Your task to perform on an android device: turn on priority inbox in the gmail app Image 0: 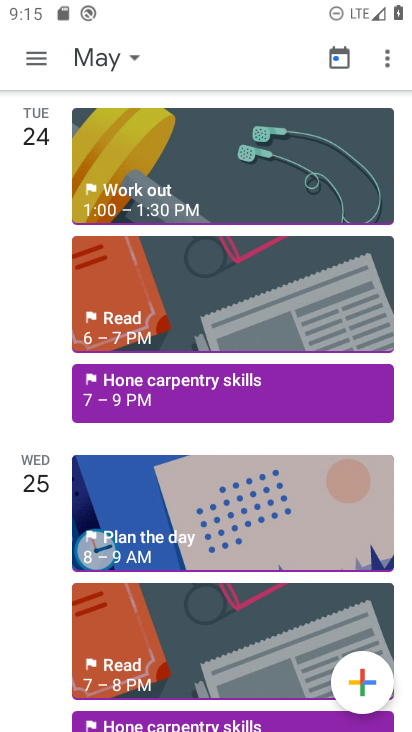
Step 0: press home button
Your task to perform on an android device: turn on priority inbox in the gmail app Image 1: 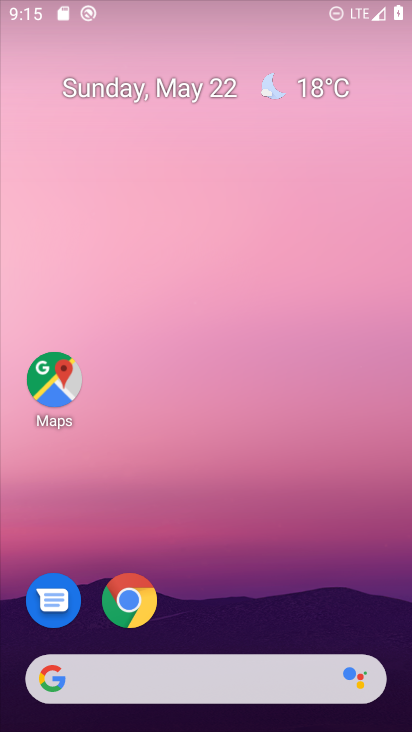
Step 1: drag from (391, 658) to (203, 4)
Your task to perform on an android device: turn on priority inbox in the gmail app Image 2: 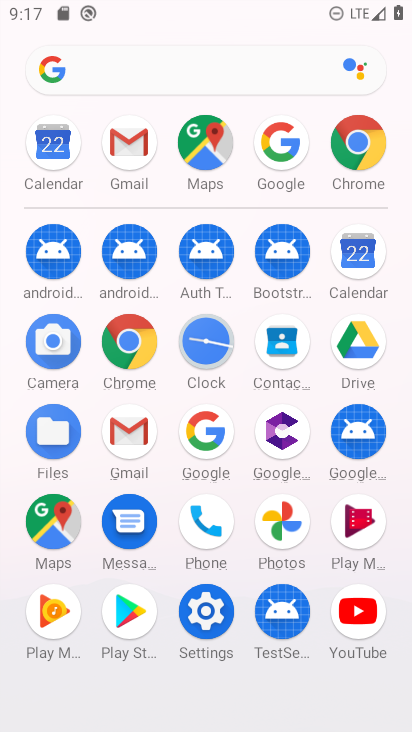
Step 2: click (124, 421)
Your task to perform on an android device: turn on priority inbox in the gmail app Image 3: 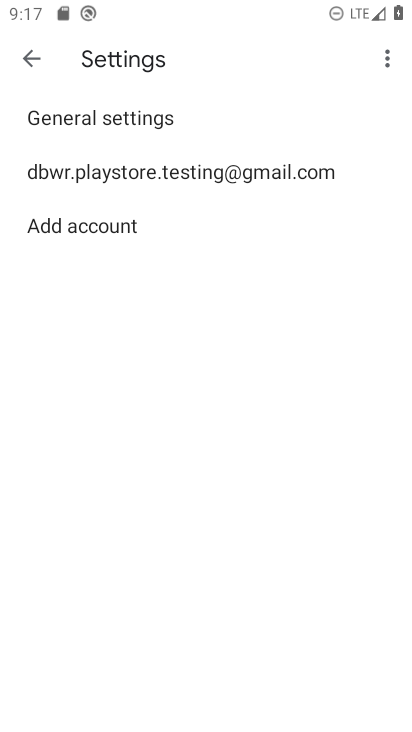
Step 3: click (132, 170)
Your task to perform on an android device: turn on priority inbox in the gmail app Image 4: 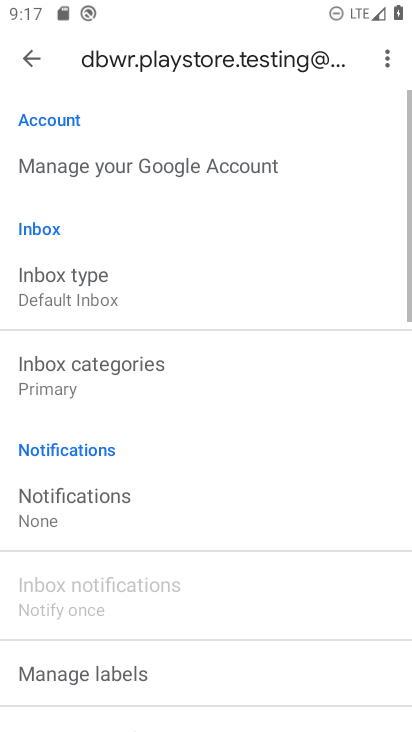
Step 4: click (103, 302)
Your task to perform on an android device: turn on priority inbox in the gmail app Image 5: 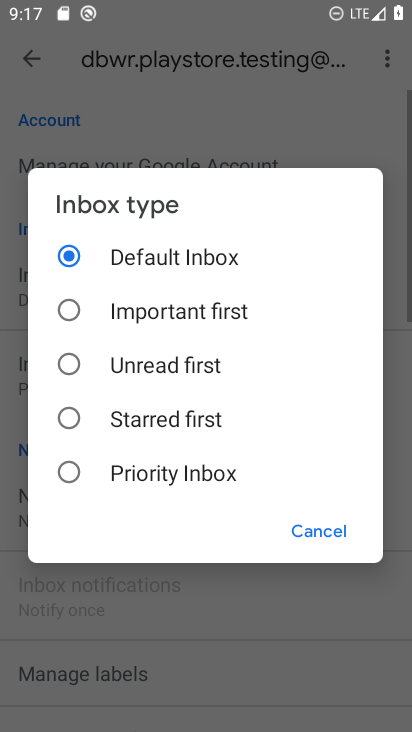
Step 5: click (94, 476)
Your task to perform on an android device: turn on priority inbox in the gmail app Image 6: 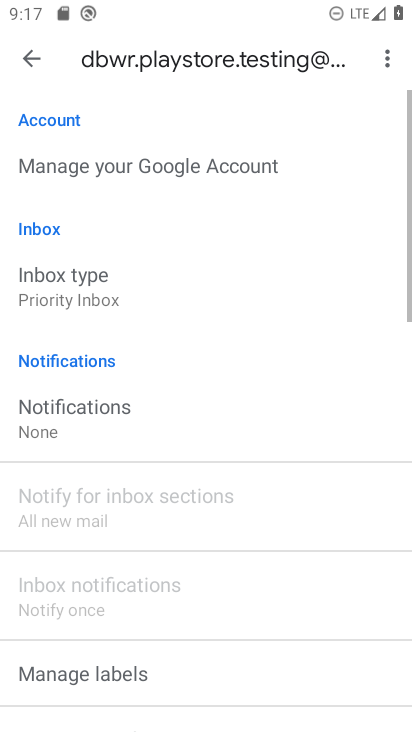
Step 6: task complete